Your task to perform on an android device: turn off airplane mode Image 0: 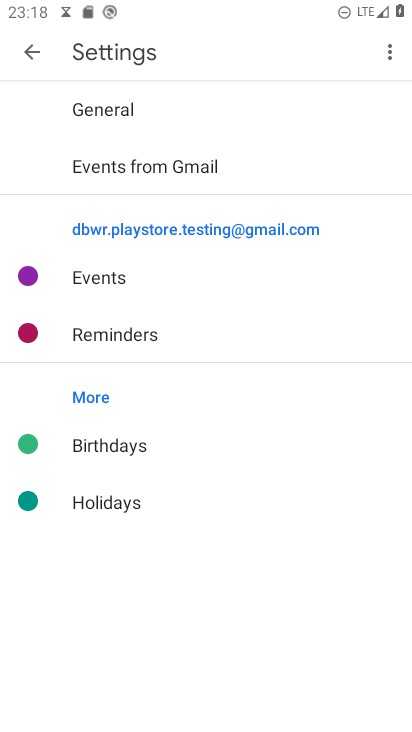
Step 0: press home button
Your task to perform on an android device: turn off airplane mode Image 1: 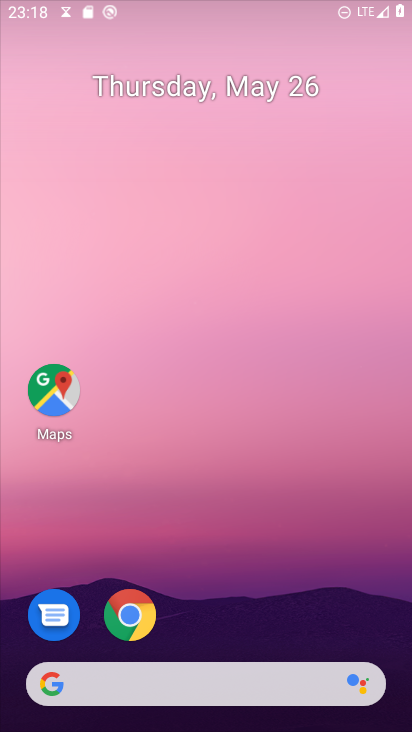
Step 1: drag from (201, 562) to (232, 302)
Your task to perform on an android device: turn off airplane mode Image 2: 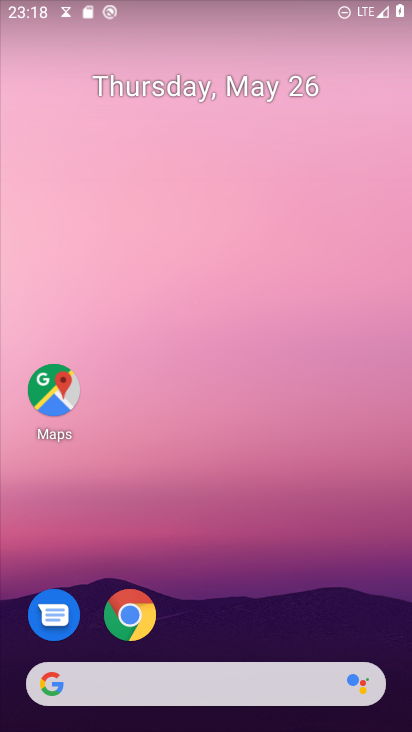
Step 2: drag from (232, 615) to (280, 154)
Your task to perform on an android device: turn off airplane mode Image 3: 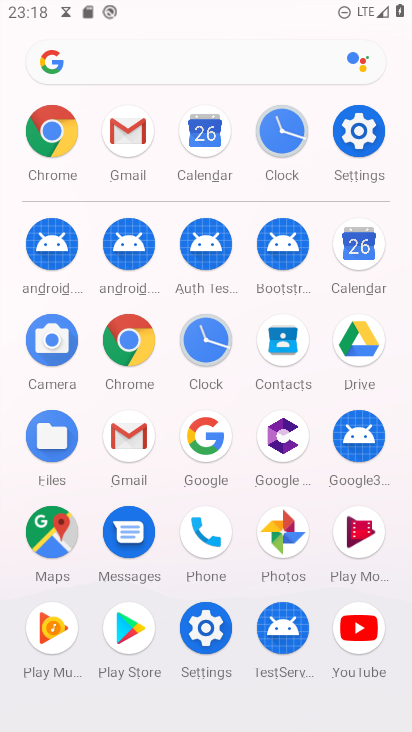
Step 3: click (354, 130)
Your task to perform on an android device: turn off airplane mode Image 4: 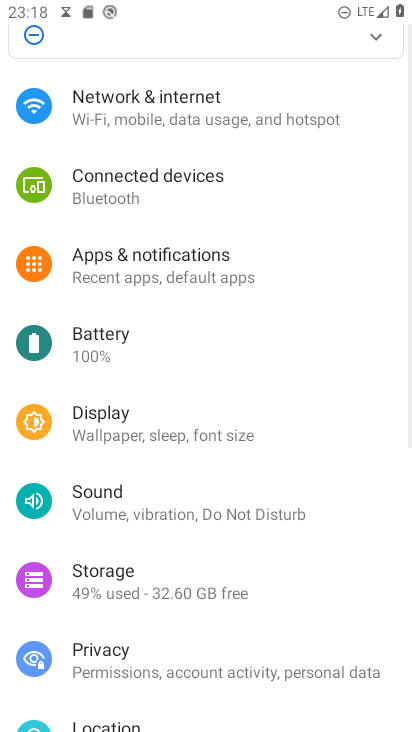
Step 4: drag from (176, 120) to (181, 464)
Your task to perform on an android device: turn off airplane mode Image 5: 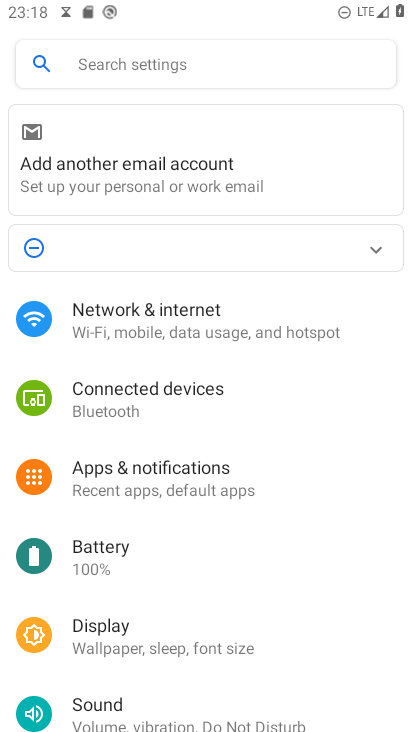
Step 5: click (133, 359)
Your task to perform on an android device: turn off airplane mode Image 6: 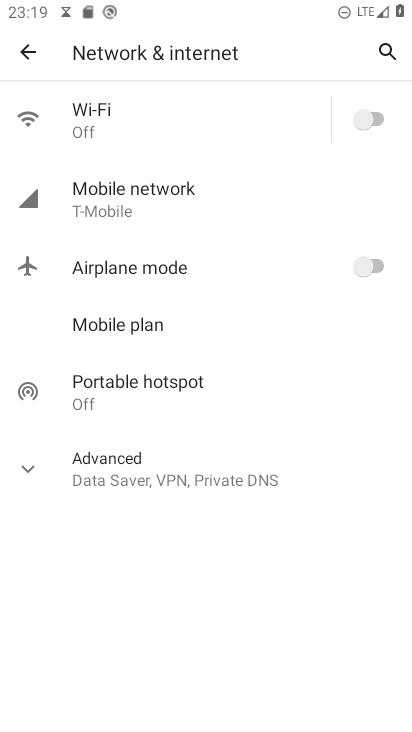
Step 6: task complete